Your task to perform on an android device: Open Google Maps and go to "Timeline" Image 0: 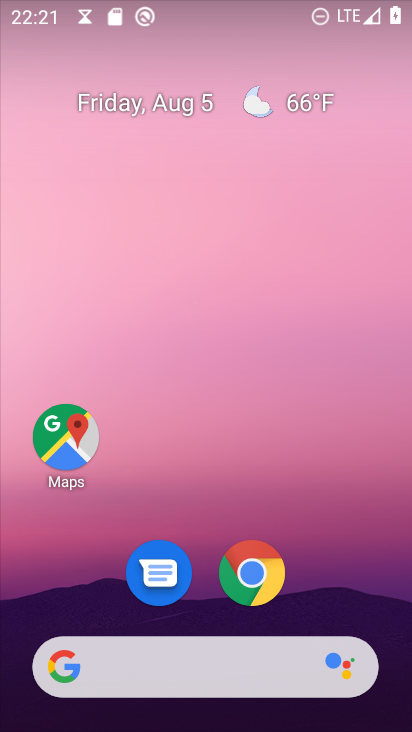
Step 0: click (64, 438)
Your task to perform on an android device: Open Google Maps and go to "Timeline" Image 1: 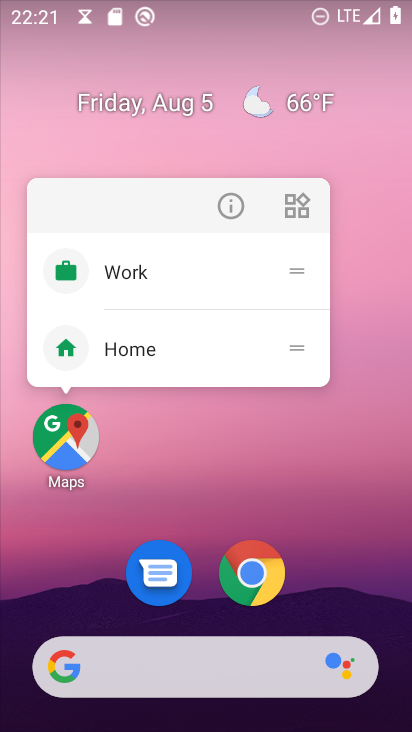
Step 1: click (64, 438)
Your task to perform on an android device: Open Google Maps and go to "Timeline" Image 2: 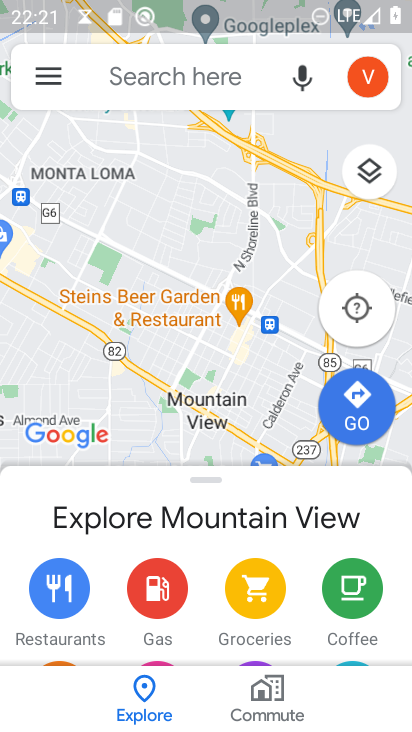
Step 2: click (47, 76)
Your task to perform on an android device: Open Google Maps and go to "Timeline" Image 3: 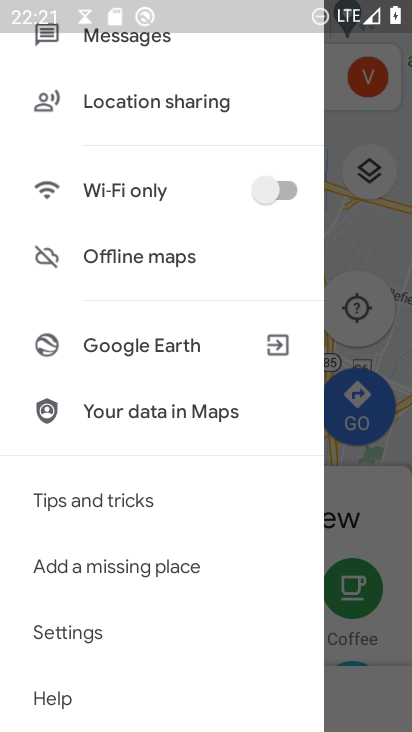
Step 3: drag from (163, 166) to (147, 316)
Your task to perform on an android device: Open Google Maps and go to "Timeline" Image 4: 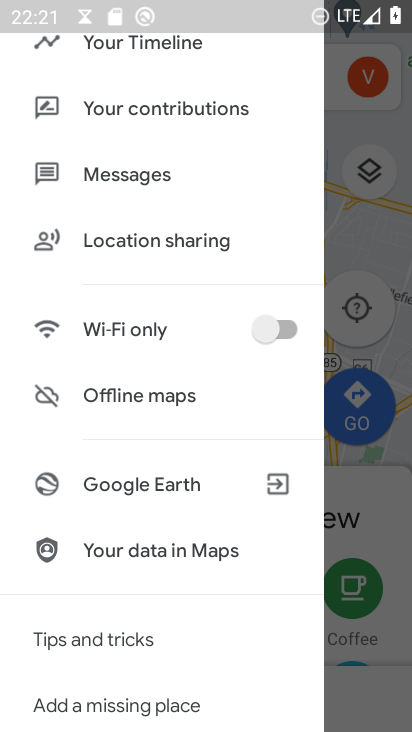
Step 4: drag from (172, 142) to (181, 336)
Your task to perform on an android device: Open Google Maps and go to "Timeline" Image 5: 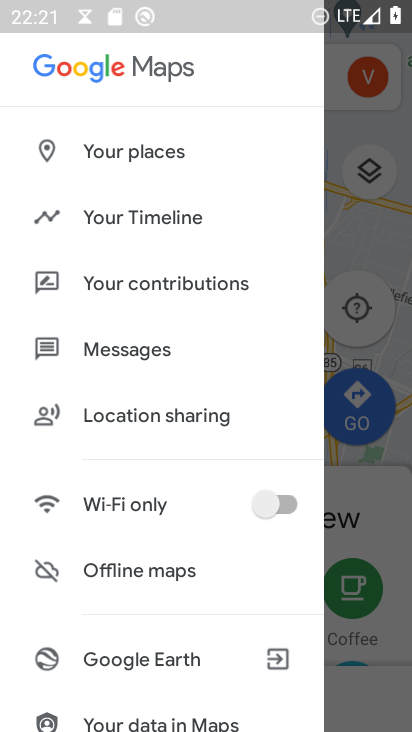
Step 5: click (189, 224)
Your task to perform on an android device: Open Google Maps and go to "Timeline" Image 6: 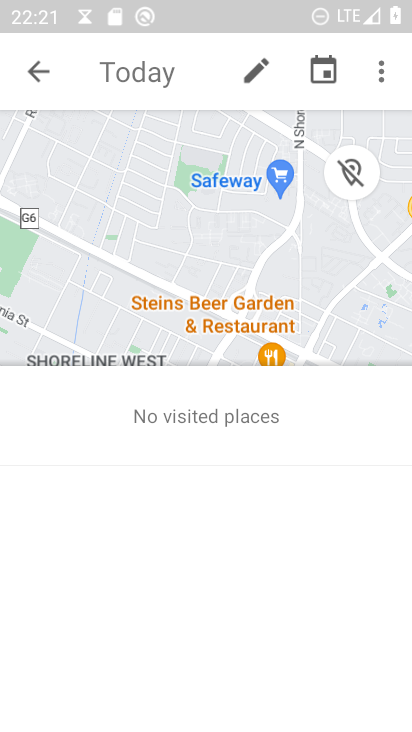
Step 6: task complete